Your task to perform on an android device: Toggle the flashlight Image 0: 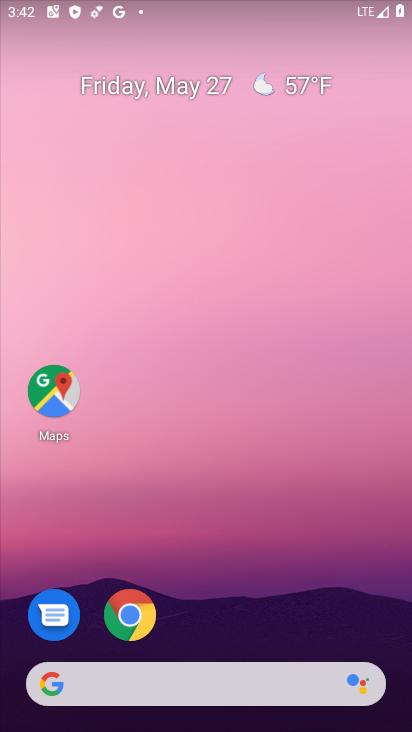
Step 0: drag from (208, 611) to (265, 22)
Your task to perform on an android device: Toggle the flashlight Image 1: 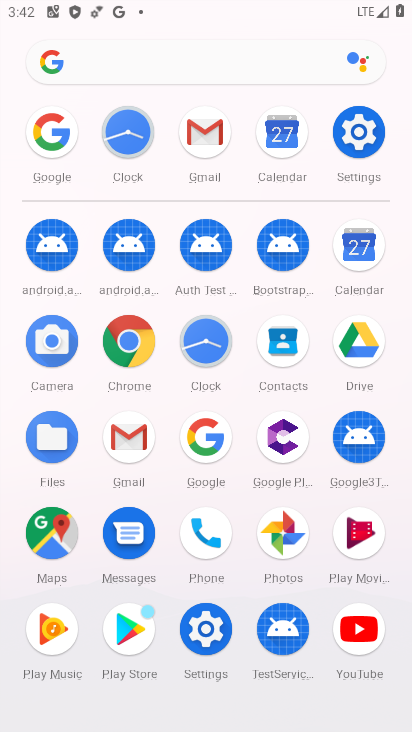
Step 1: task complete